Your task to perform on an android device: open wifi settings Image 0: 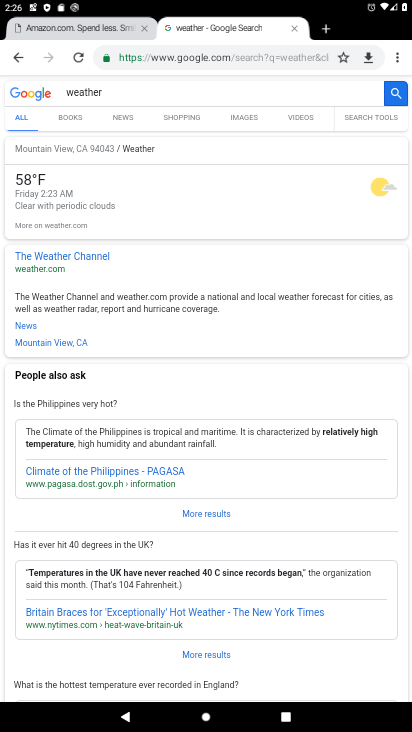
Step 0: press home button
Your task to perform on an android device: open wifi settings Image 1: 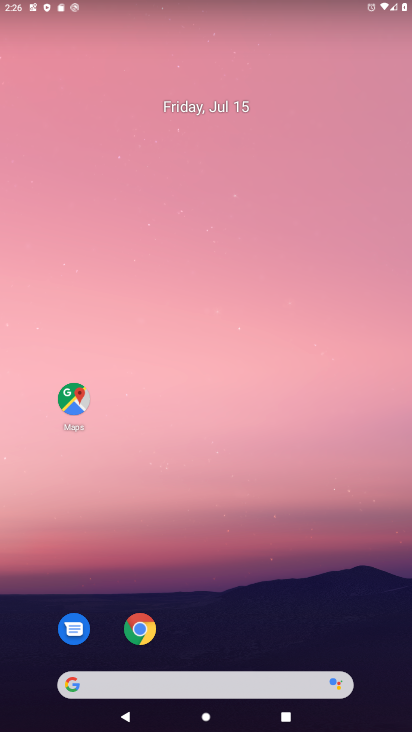
Step 1: drag from (277, 605) to (303, 179)
Your task to perform on an android device: open wifi settings Image 2: 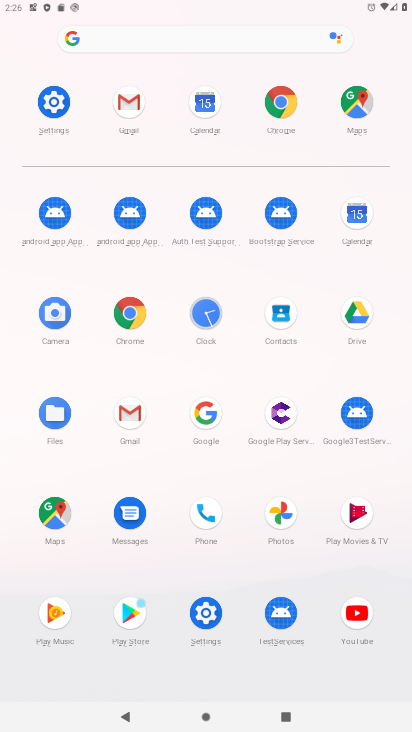
Step 2: click (58, 98)
Your task to perform on an android device: open wifi settings Image 3: 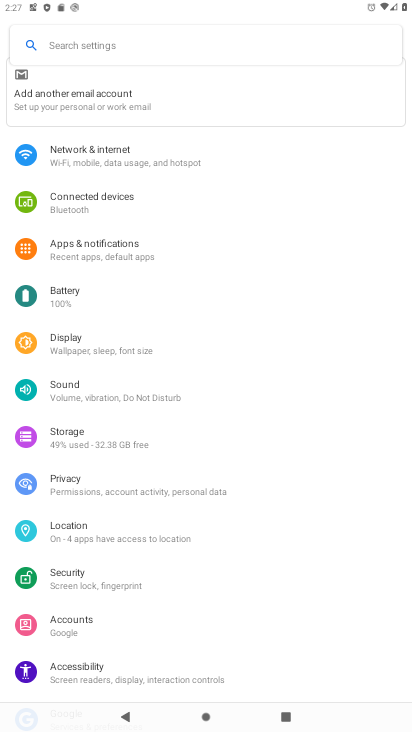
Step 3: click (105, 156)
Your task to perform on an android device: open wifi settings Image 4: 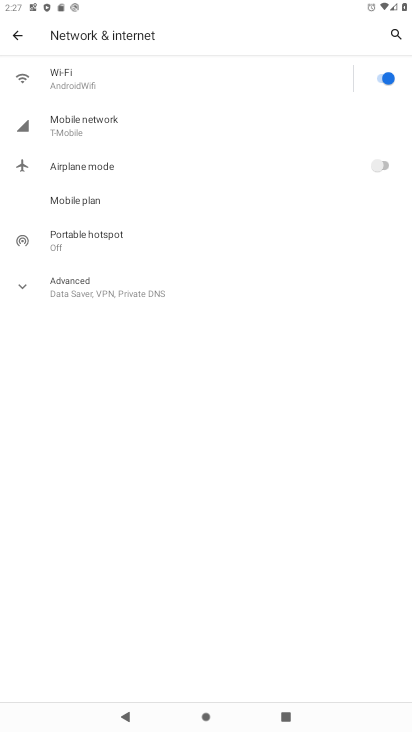
Step 4: click (72, 69)
Your task to perform on an android device: open wifi settings Image 5: 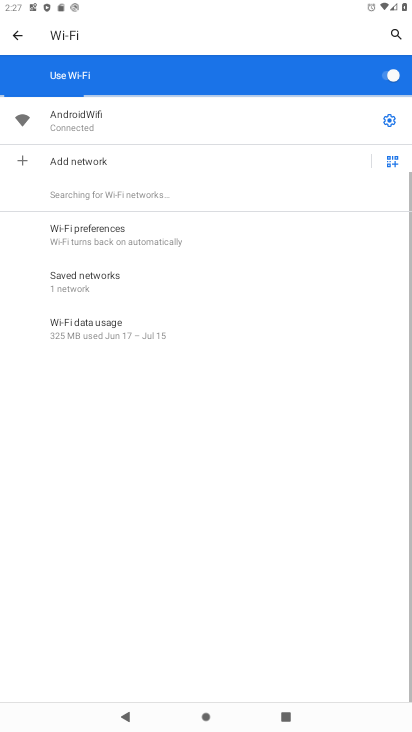
Step 5: click (391, 121)
Your task to perform on an android device: open wifi settings Image 6: 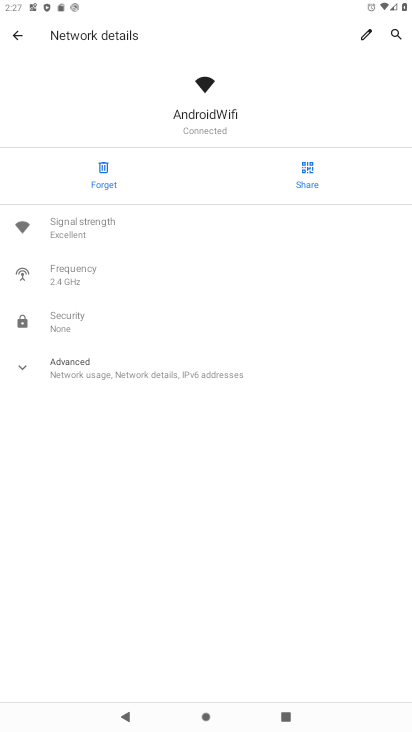
Step 6: task complete